Your task to perform on an android device: toggle sleep mode Image 0: 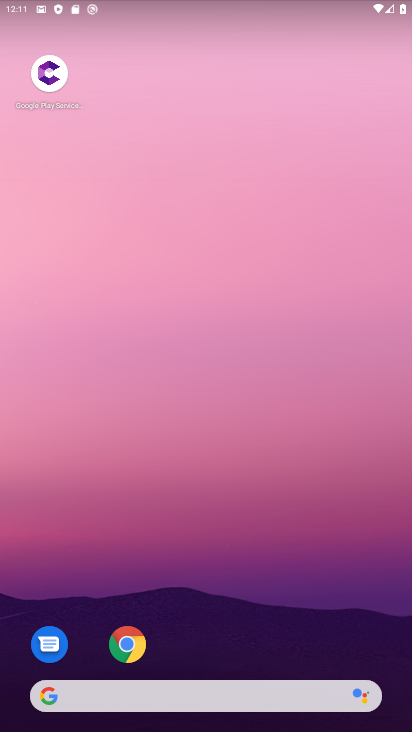
Step 0: drag from (184, 48) to (190, 1)
Your task to perform on an android device: toggle sleep mode Image 1: 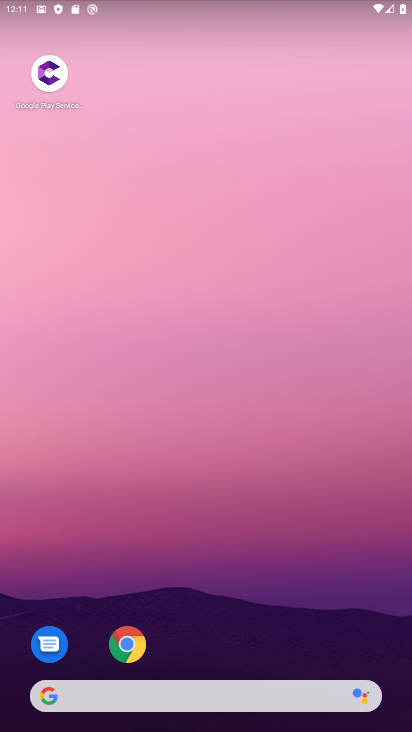
Step 1: drag from (181, 617) to (199, 72)
Your task to perform on an android device: toggle sleep mode Image 2: 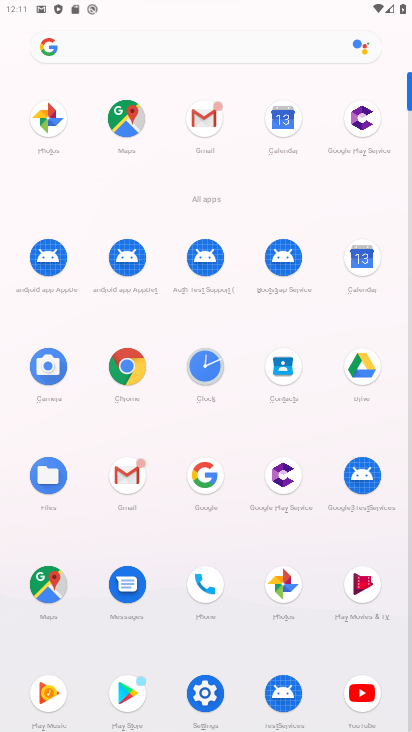
Step 2: click (202, 691)
Your task to perform on an android device: toggle sleep mode Image 3: 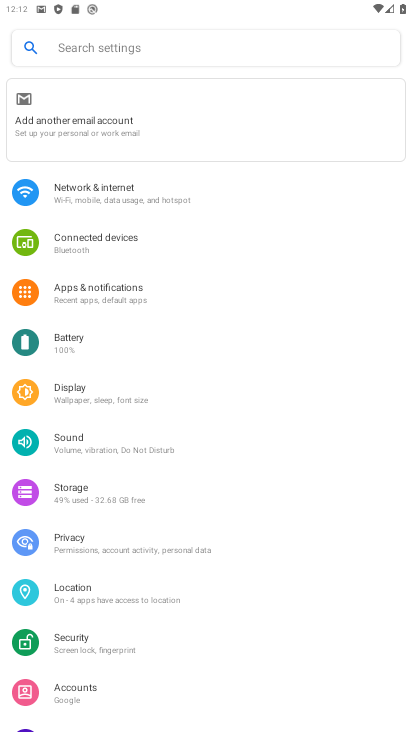
Step 3: task complete